Your task to perform on an android device: Open Google Image 0: 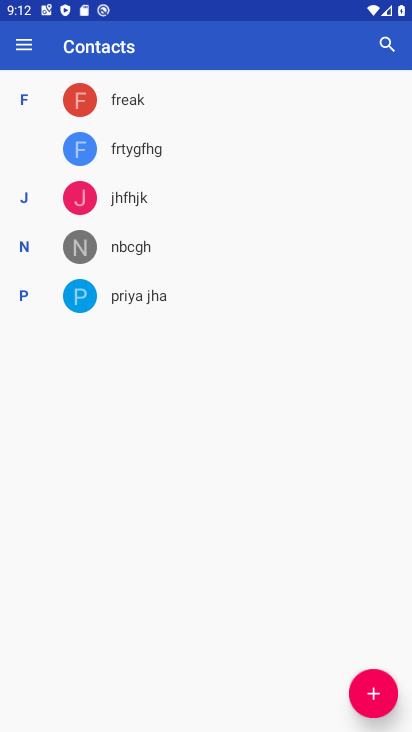
Step 0: press home button
Your task to perform on an android device: Open Google Image 1: 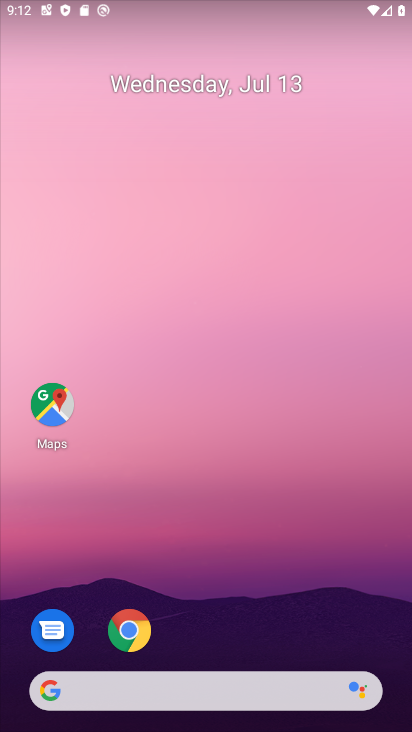
Step 1: drag from (276, 575) to (286, 0)
Your task to perform on an android device: Open Google Image 2: 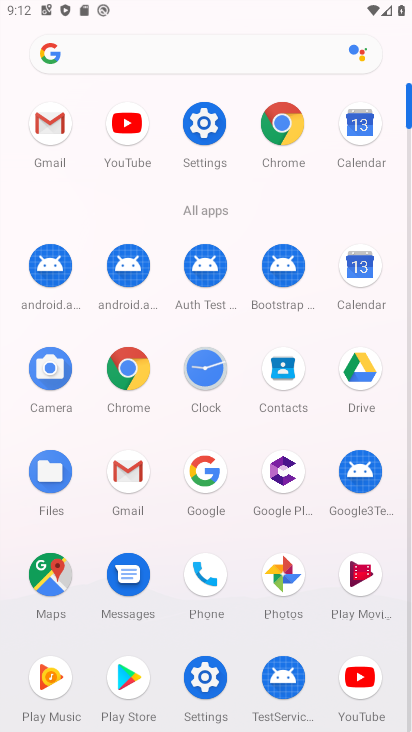
Step 2: click (203, 465)
Your task to perform on an android device: Open Google Image 3: 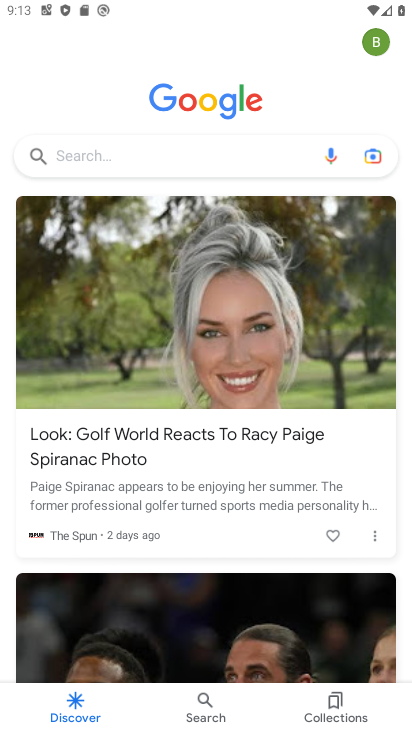
Step 3: task complete